Your task to perform on an android device: Open Google Image 0: 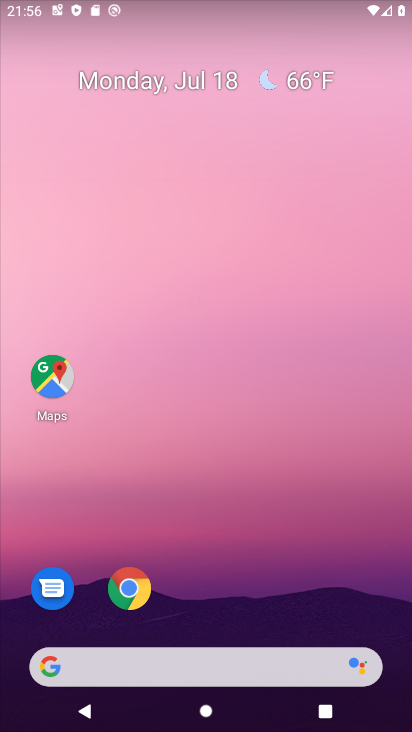
Step 0: drag from (152, 626) to (300, 105)
Your task to perform on an android device: Open Google Image 1: 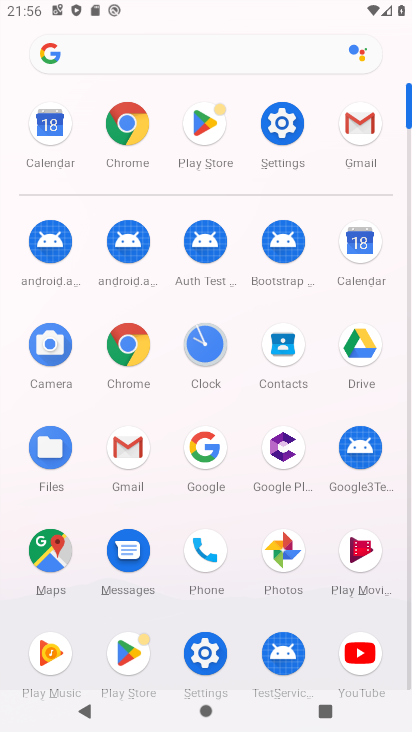
Step 1: click (201, 450)
Your task to perform on an android device: Open Google Image 2: 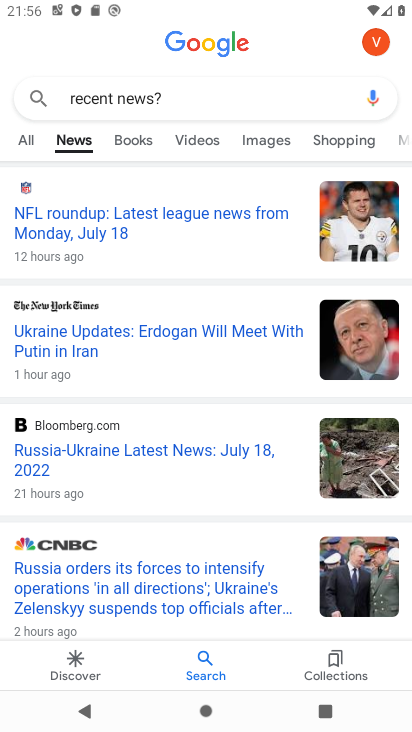
Step 2: press back button
Your task to perform on an android device: Open Google Image 3: 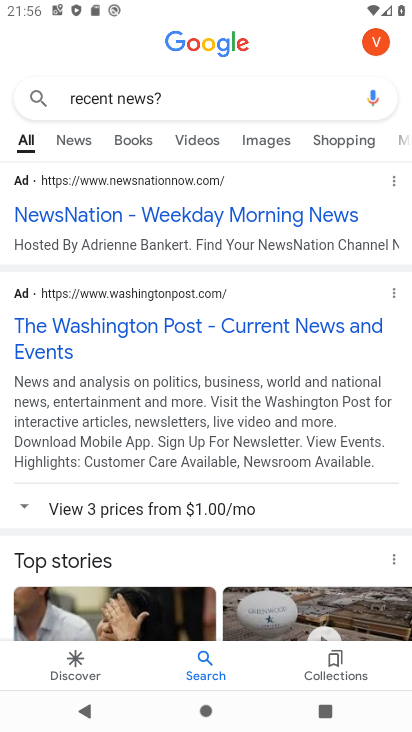
Step 3: press back button
Your task to perform on an android device: Open Google Image 4: 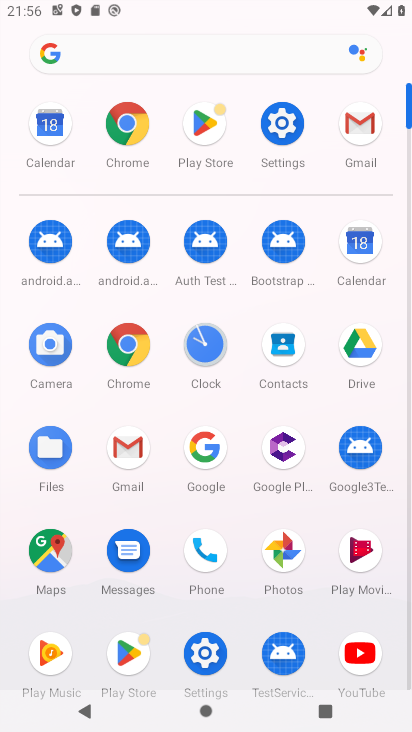
Step 4: click (199, 440)
Your task to perform on an android device: Open Google Image 5: 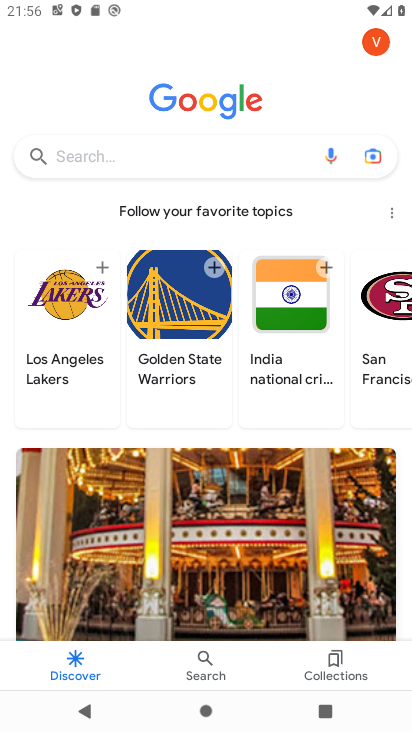
Step 5: task complete